Your task to perform on an android device: turn on wifi Image 0: 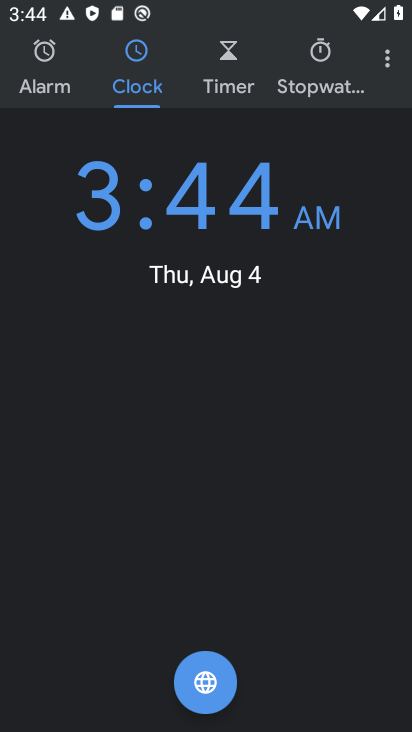
Step 0: press home button
Your task to perform on an android device: turn on wifi Image 1: 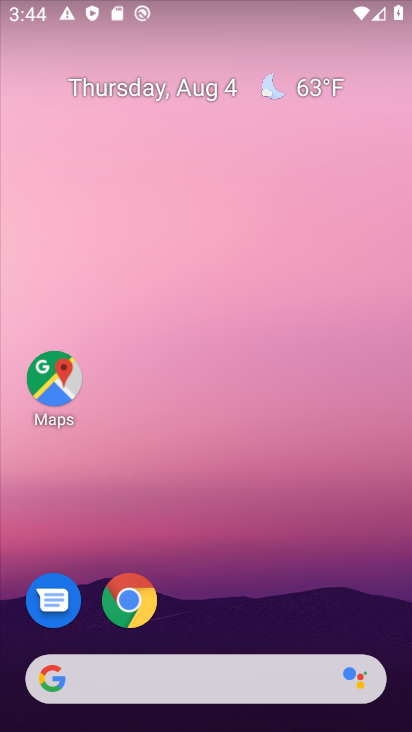
Step 1: drag from (295, 559) to (264, 110)
Your task to perform on an android device: turn on wifi Image 2: 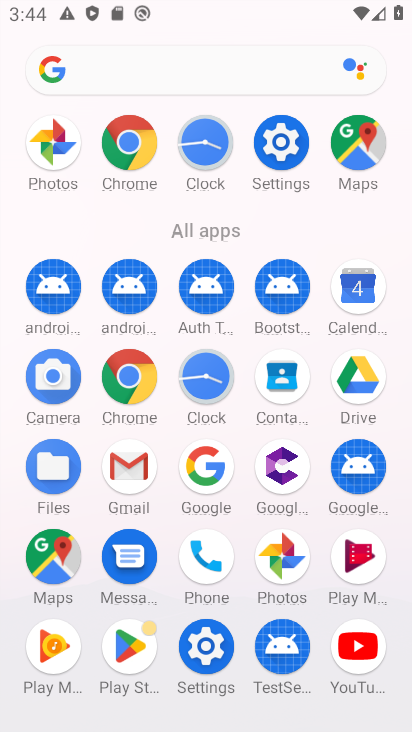
Step 2: click (280, 142)
Your task to perform on an android device: turn on wifi Image 3: 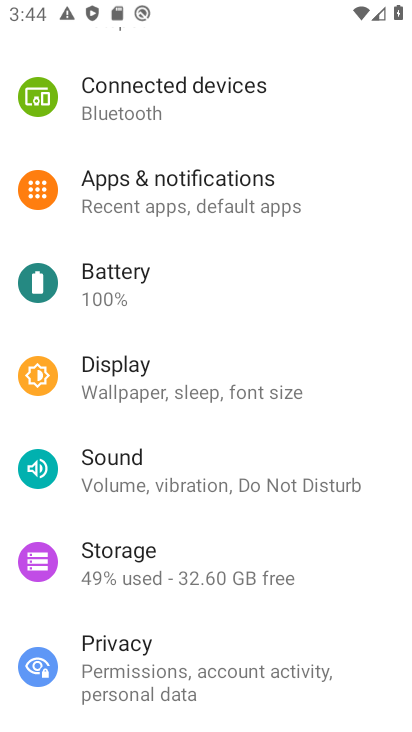
Step 3: drag from (230, 116) to (227, 530)
Your task to perform on an android device: turn on wifi Image 4: 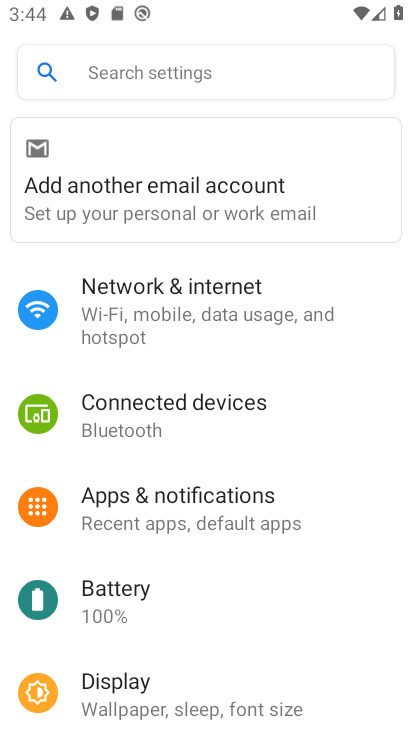
Step 4: click (172, 321)
Your task to perform on an android device: turn on wifi Image 5: 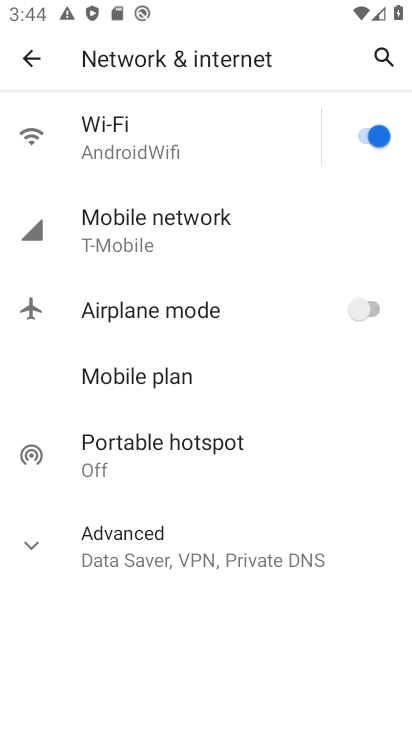
Step 5: task complete